Your task to perform on an android device: Open calendar and show me the fourth week of next month Image 0: 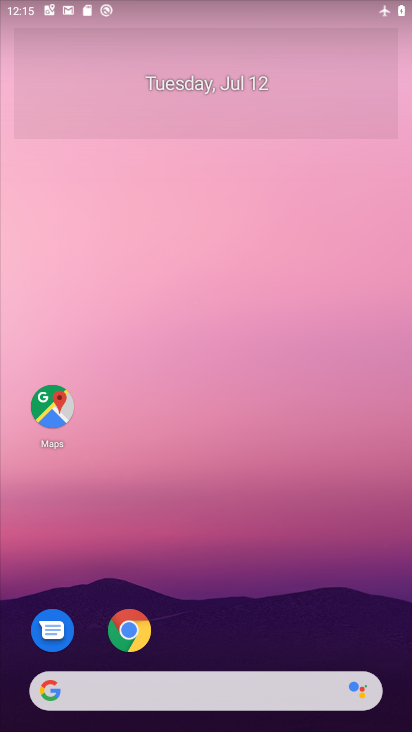
Step 0: drag from (236, 616) to (318, 60)
Your task to perform on an android device: Open calendar and show me the fourth week of next month Image 1: 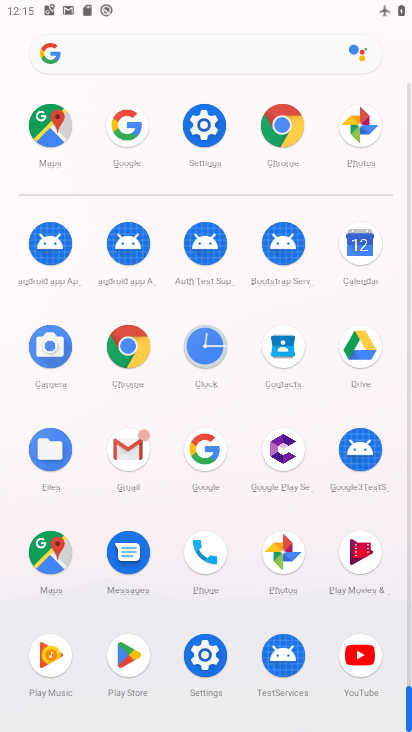
Step 1: click (357, 249)
Your task to perform on an android device: Open calendar and show me the fourth week of next month Image 2: 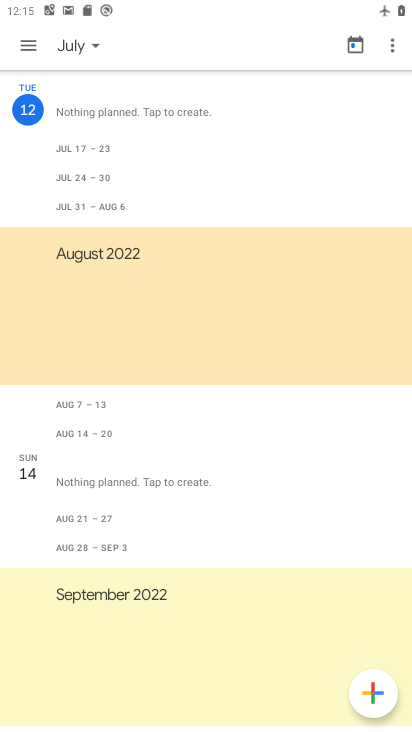
Step 2: click (88, 46)
Your task to perform on an android device: Open calendar and show me the fourth week of next month Image 3: 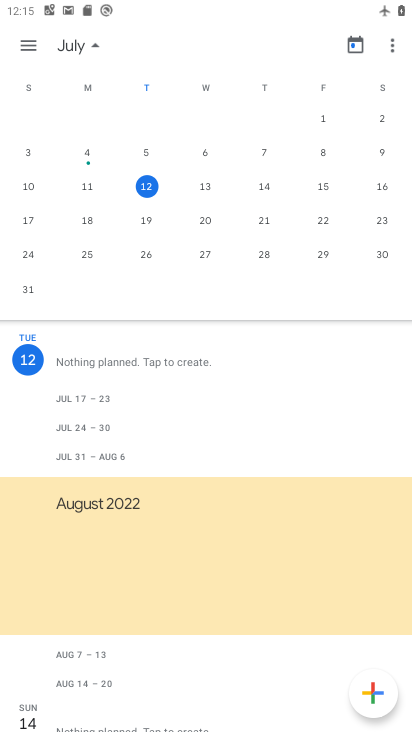
Step 3: drag from (358, 221) to (0, 165)
Your task to perform on an android device: Open calendar and show me the fourth week of next month Image 4: 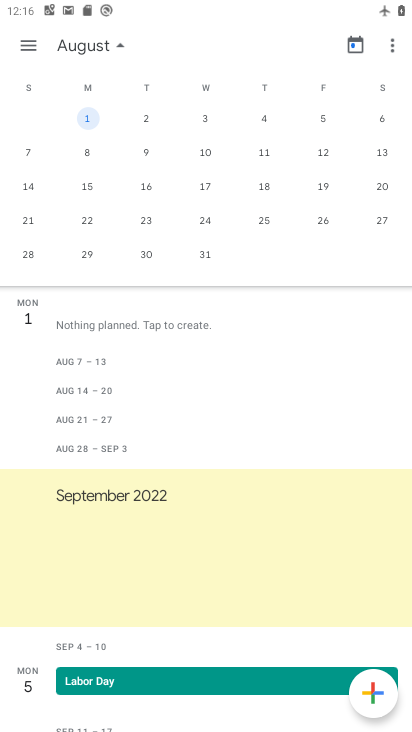
Step 4: click (28, 220)
Your task to perform on an android device: Open calendar and show me the fourth week of next month Image 5: 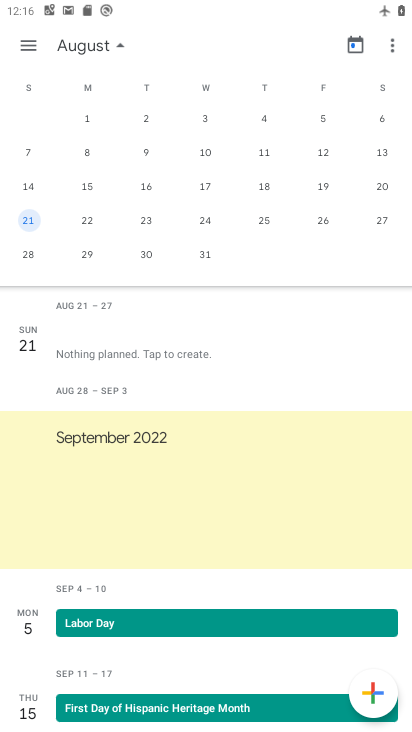
Step 5: task complete